Your task to perform on an android device: Open privacy settings Image 0: 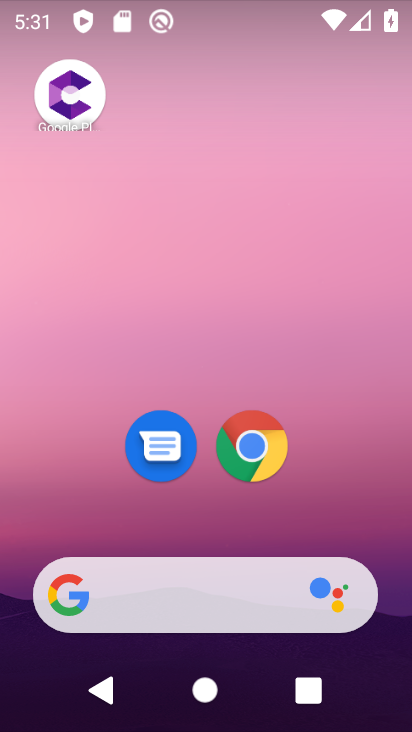
Step 0: drag from (293, 471) to (299, 102)
Your task to perform on an android device: Open privacy settings Image 1: 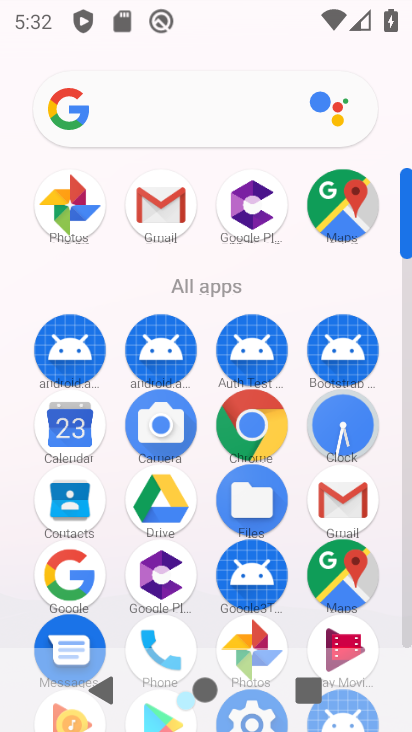
Step 1: drag from (204, 307) to (329, 22)
Your task to perform on an android device: Open privacy settings Image 2: 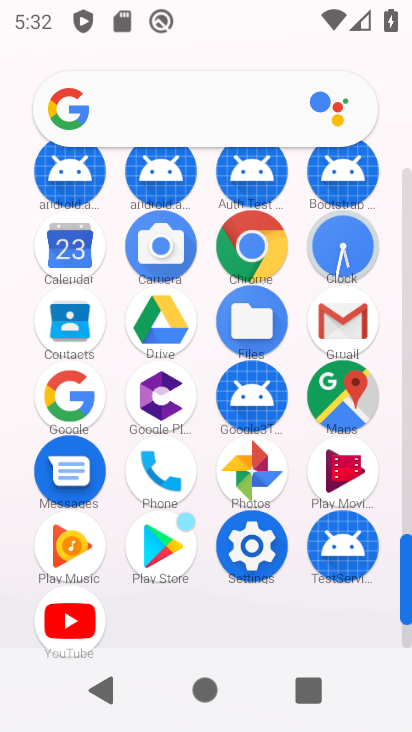
Step 2: click (256, 523)
Your task to perform on an android device: Open privacy settings Image 3: 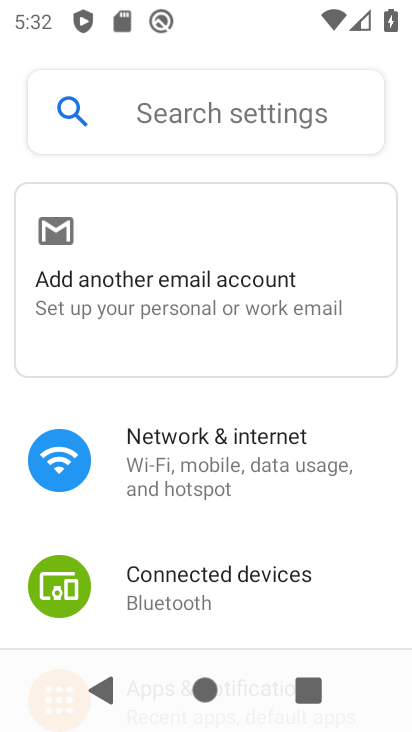
Step 3: drag from (298, 607) to (296, 236)
Your task to perform on an android device: Open privacy settings Image 4: 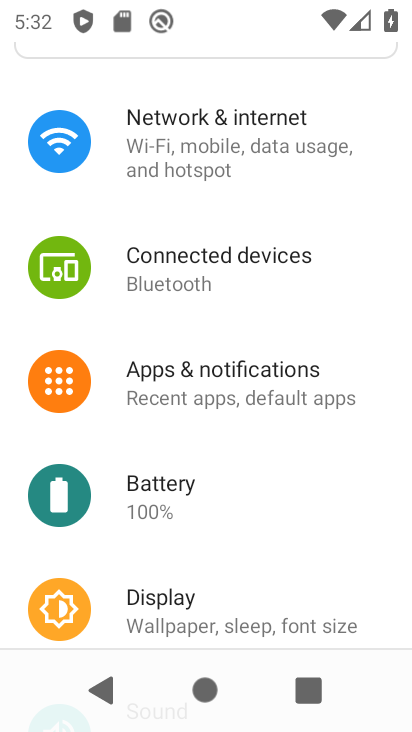
Step 4: drag from (298, 611) to (312, 221)
Your task to perform on an android device: Open privacy settings Image 5: 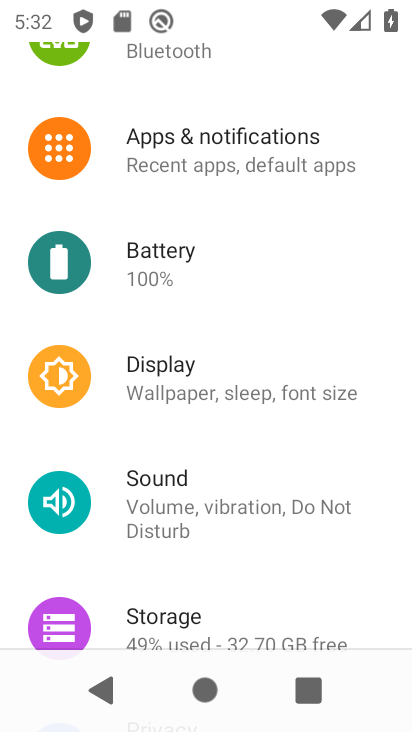
Step 5: drag from (253, 560) to (245, 211)
Your task to perform on an android device: Open privacy settings Image 6: 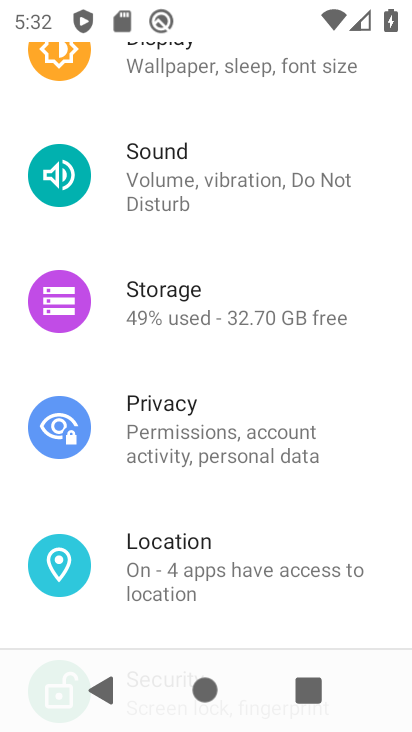
Step 6: click (189, 432)
Your task to perform on an android device: Open privacy settings Image 7: 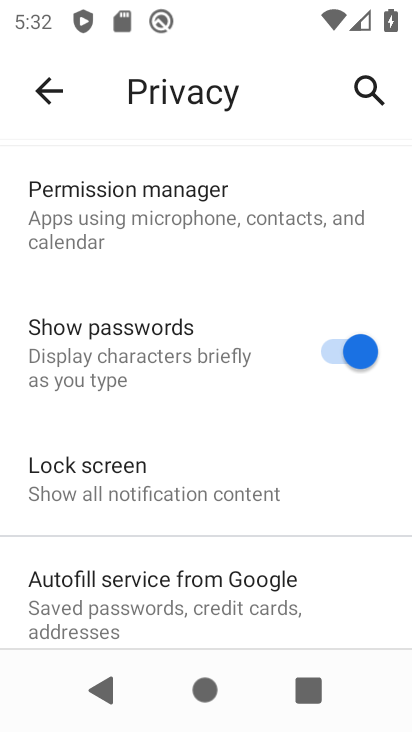
Step 7: task complete